Your task to perform on an android device: Set the phone to "Do not disturb". Image 0: 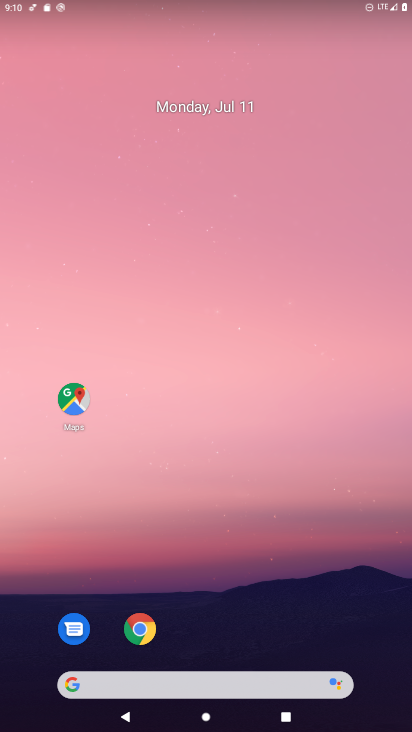
Step 0: drag from (150, 5) to (185, 517)
Your task to perform on an android device: Set the phone to "Do not disturb". Image 1: 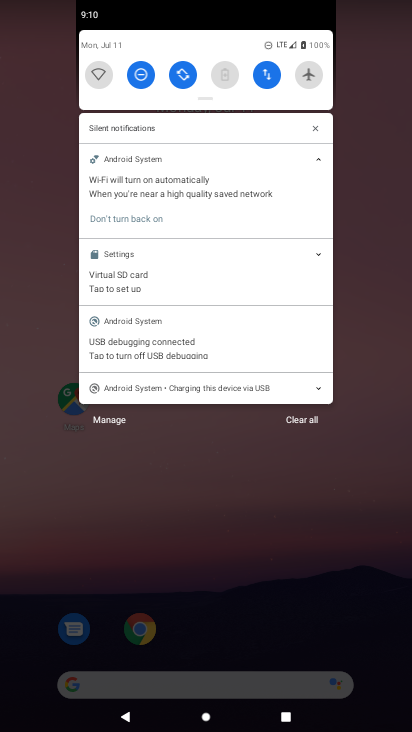
Step 1: task complete